Your task to perform on an android device: open a bookmark in the chrome app Image 0: 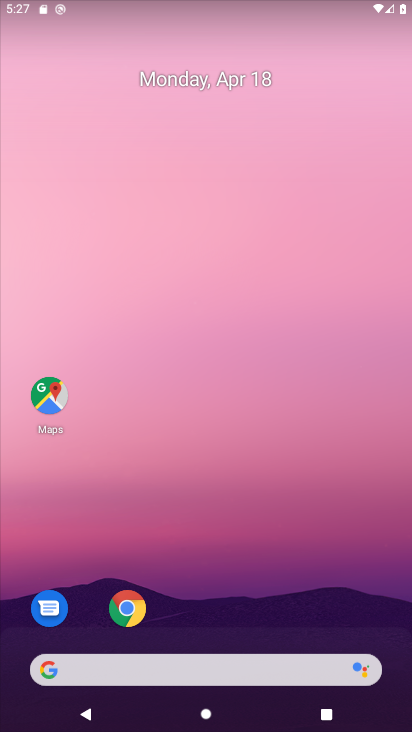
Step 0: drag from (319, 609) to (241, 28)
Your task to perform on an android device: open a bookmark in the chrome app Image 1: 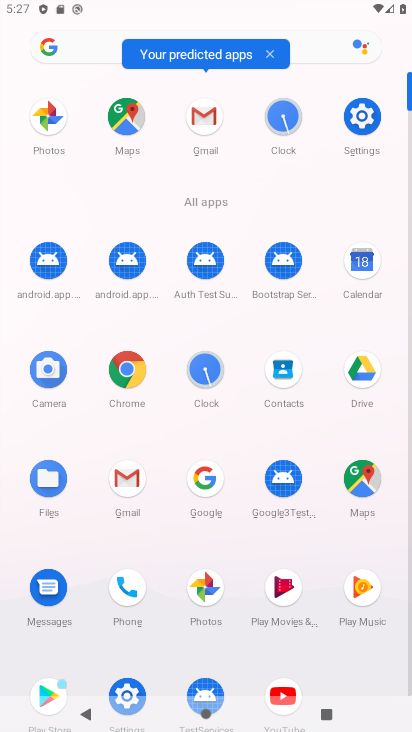
Step 1: click (123, 371)
Your task to perform on an android device: open a bookmark in the chrome app Image 2: 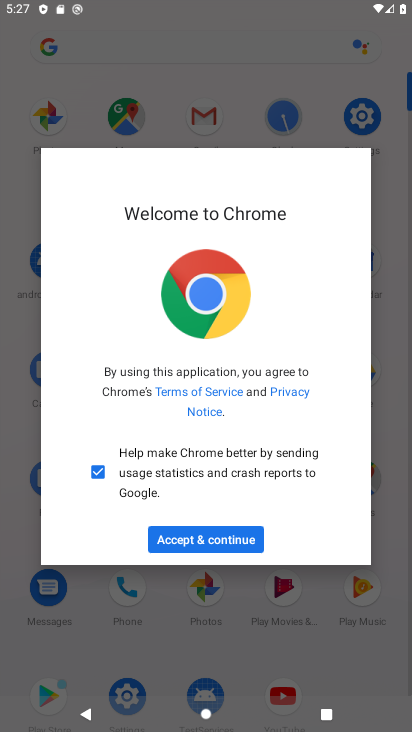
Step 2: click (184, 544)
Your task to perform on an android device: open a bookmark in the chrome app Image 3: 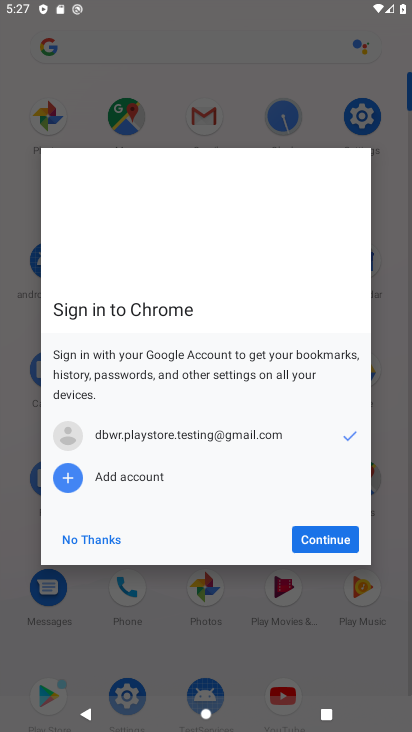
Step 3: click (319, 545)
Your task to perform on an android device: open a bookmark in the chrome app Image 4: 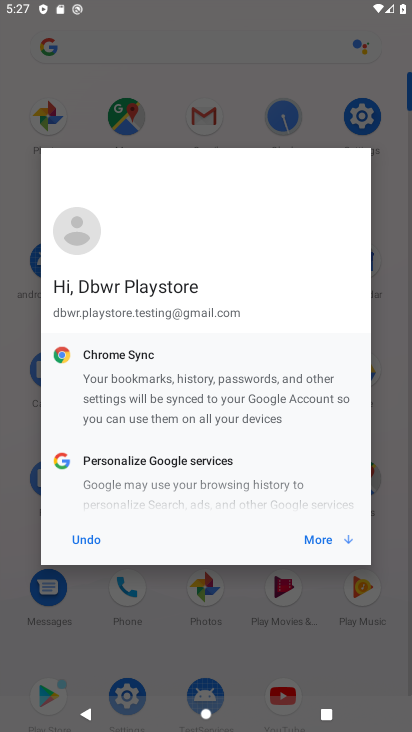
Step 4: click (316, 535)
Your task to perform on an android device: open a bookmark in the chrome app Image 5: 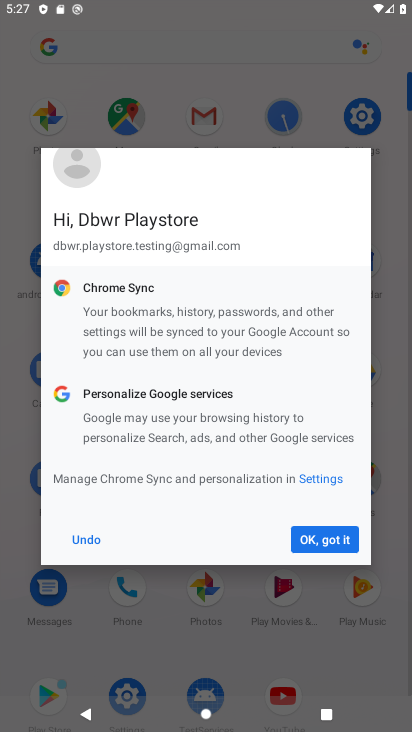
Step 5: click (316, 535)
Your task to perform on an android device: open a bookmark in the chrome app Image 6: 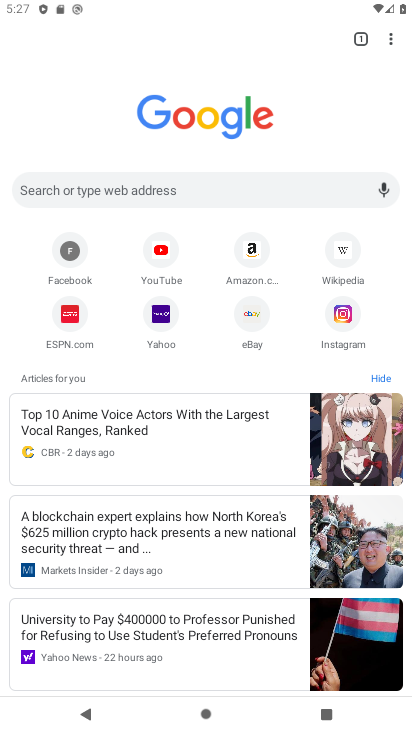
Step 6: task complete